Your task to perform on an android device: Open Yahoo.com Image 0: 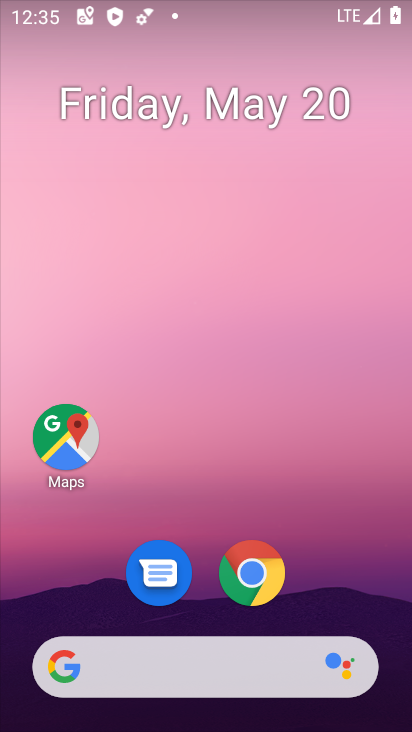
Step 0: click (251, 573)
Your task to perform on an android device: Open Yahoo.com Image 1: 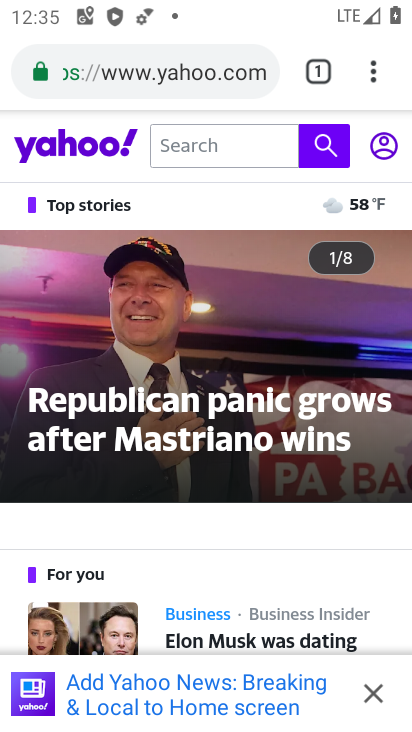
Step 1: click (220, 75)
Your task to perform on an android device: Open Yahoo.com Image 2: 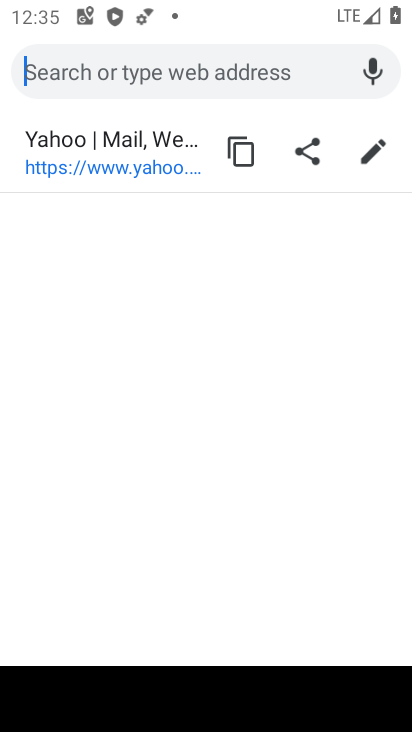
Step 2: type "yahoo.com"
Your task to perform on an android device: Open Yahoo.com Image 3: 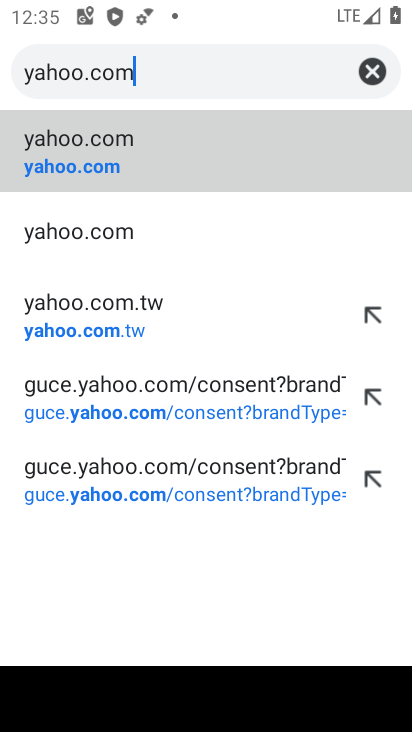
Step 3: click (66, 163)
Your task to perform on an android device: Open Yahoo.com Image 4: 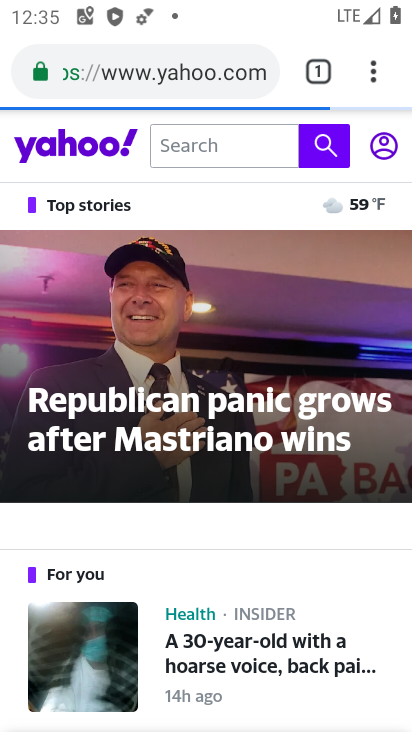
Step 4: task complete